Your task to perform on an android device: set the stopwatch Image 0: 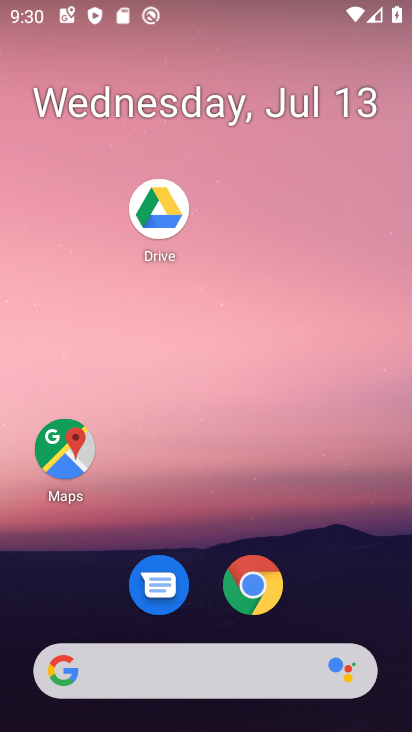
Step 0: drag from (221, 516) to (308, 237)
Your task to perform on an android device: set the stopwatch Image 1: 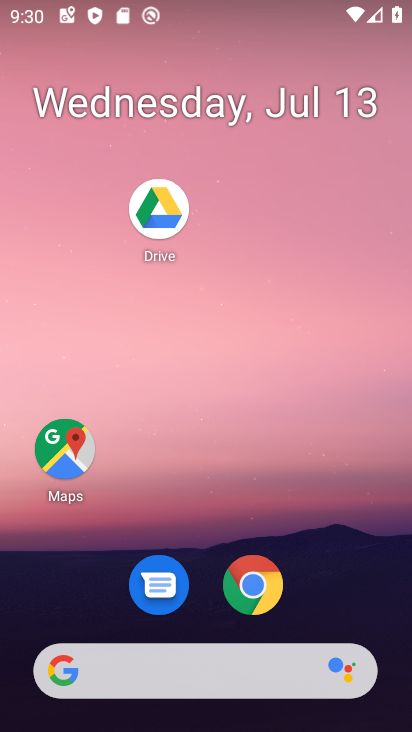
Step 1: drag from (169, 659) to (309, 58)
Your task to perform on an android device: set the stopwatch Image 2: 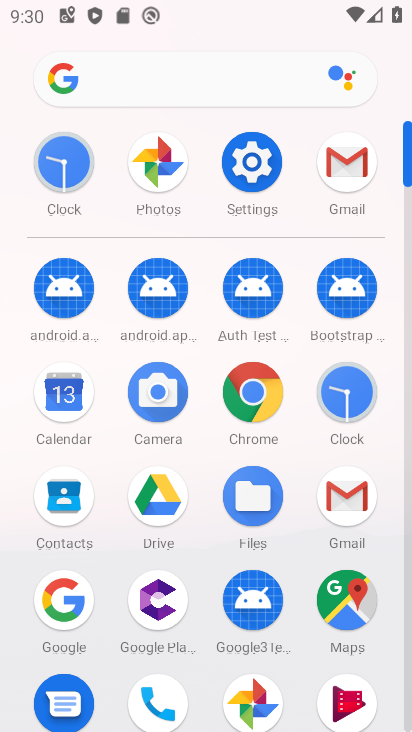
Step 2: click (342, 394)
Your task to perform on an android device: set the stopwatch Image 3: 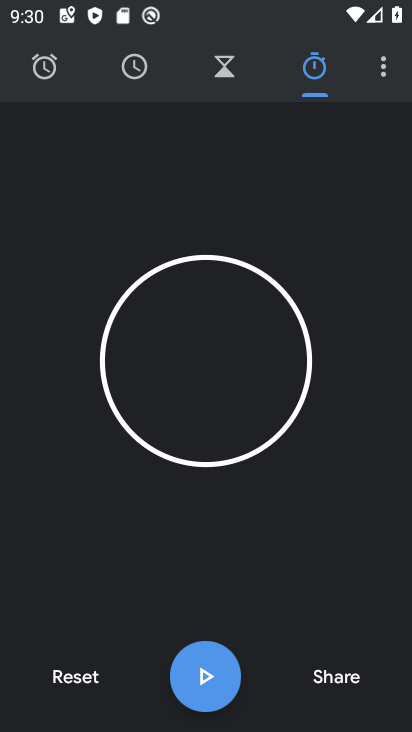
Step 3: click (76, 676)
Your task to perform on an android device: set the stopwatch Image 4: 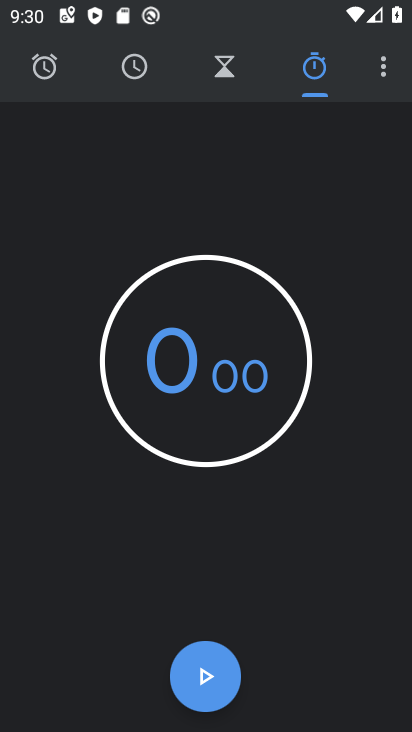
Step 4: click (221, 360)
Your task to perform on an android device: set the stopwatch Image 5: 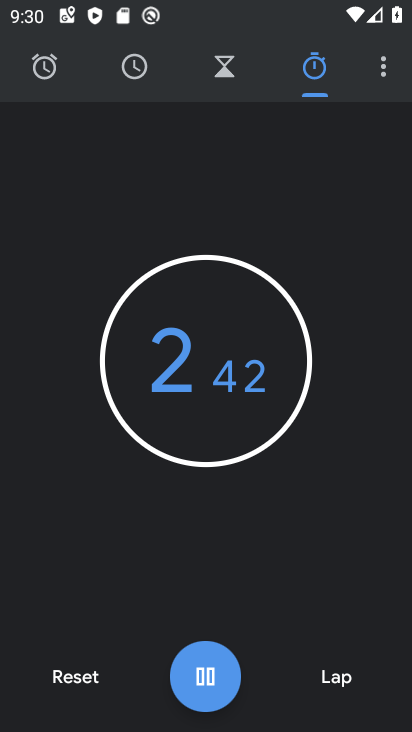
Step 5: click (221, 360)
Your task to perform on an android device: set the stopwatch Image 6: 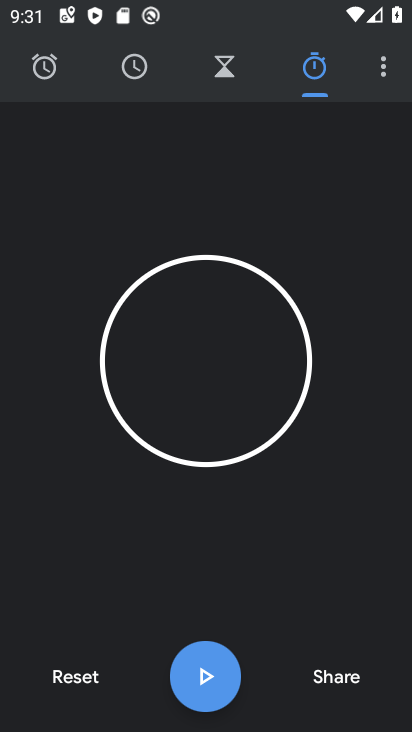
Step 6: task complete